Your task to perform on an android device: Go to privacy settings Image 0: 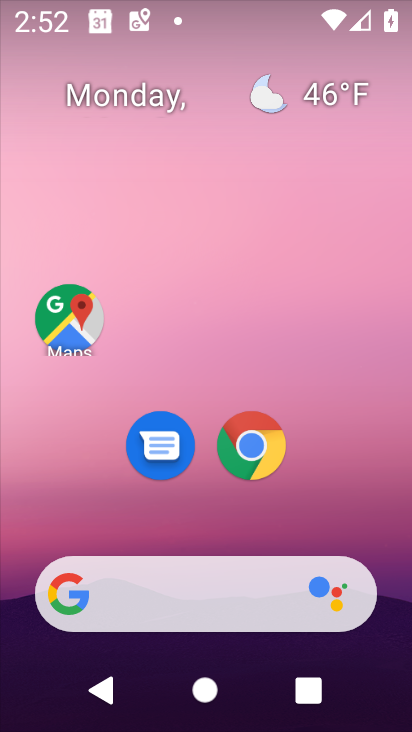
Step 0: drag from (322, 386) to (313, 95)
Your task to perform on an android device: Go to privacy settings Image 1: 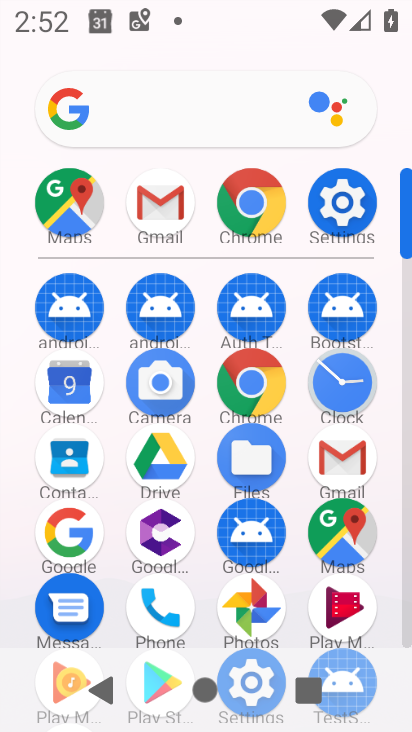
Step 1: click (357, 221)
Your task to perform on an android device: Go to privacy settings Image 2: 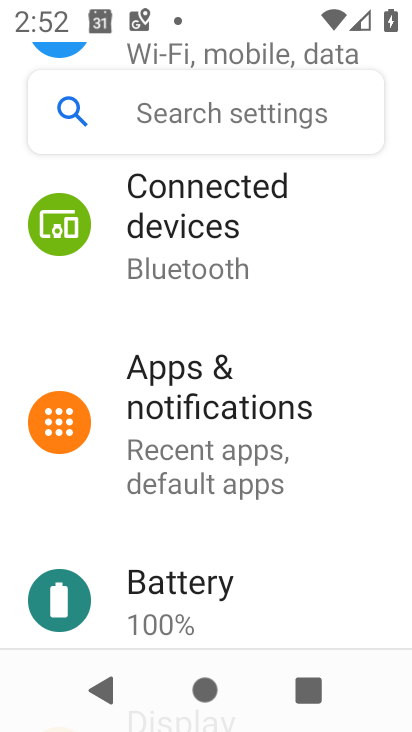
Step 2: drag from (271, 259) to (288, 644)
Your task to perform on an android device: Go to privacy settings Image 3: 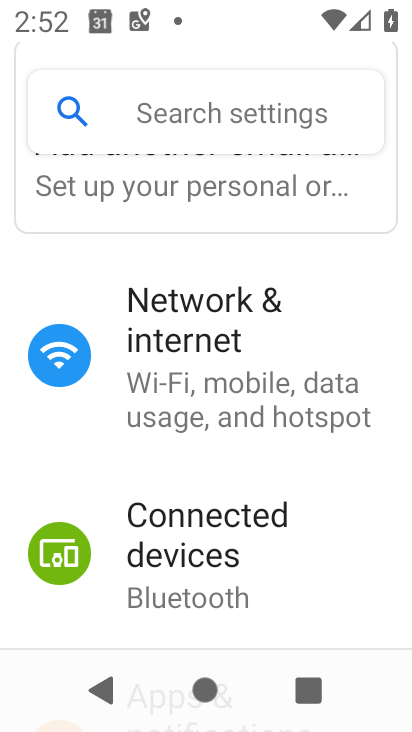
Step 3: drag from (333, 552) to (327, 231)
Your task to perform on an android device: Go to privacy settings Image 4: 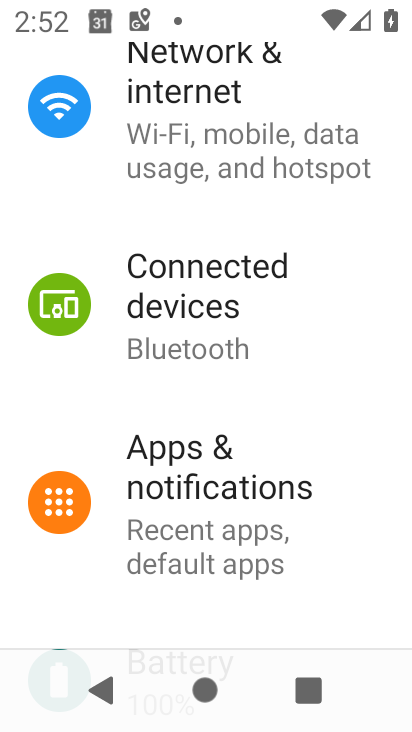
Step 4: drag from (323, 581) to (317, 236)
Your task to perform on an android device: Go to privacy settings Image 5: 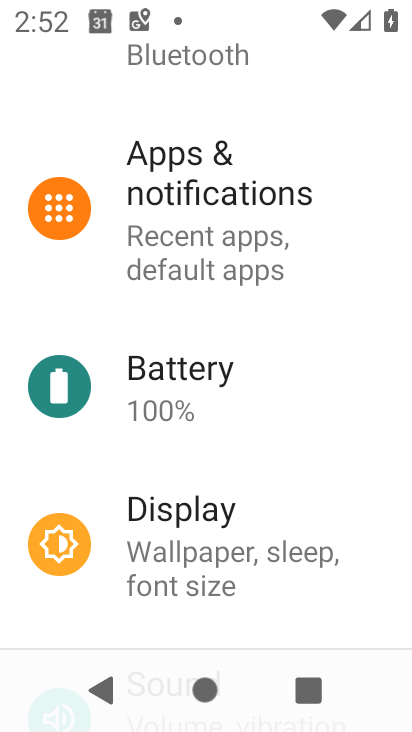
Step 5: drag from (297, 560) to (294, 150)
Your task to perform on an android device: Go to privacy settings Image 6: 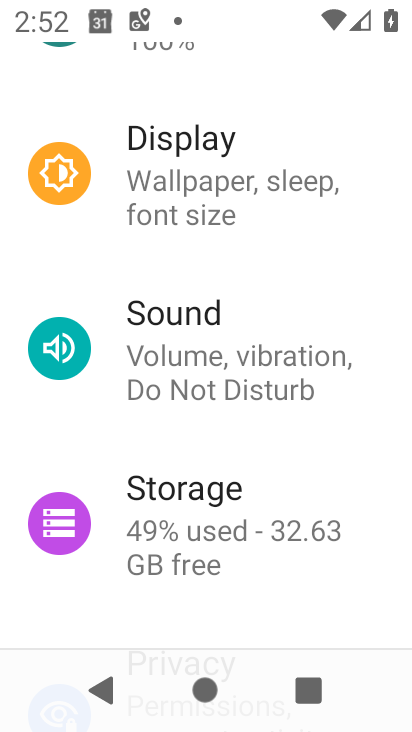
Step 6: drag from (263, 546) to (276, 216)
Your task to perform on an android device: Go to privacy settings Image 7: 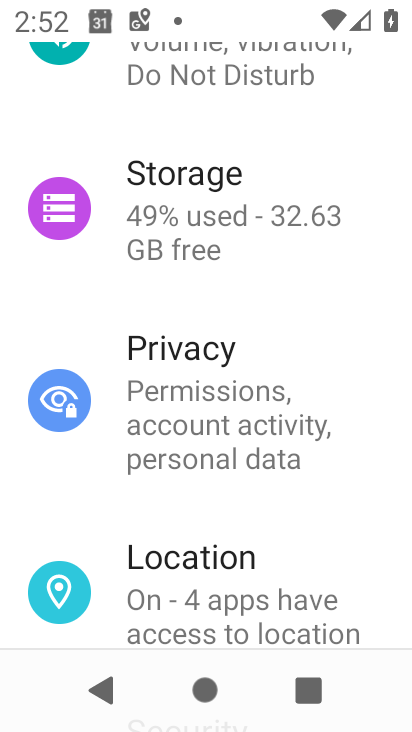
Step 7: click (289, 435)
Your task to perform on an android device: Go to privacy settings Image 8: 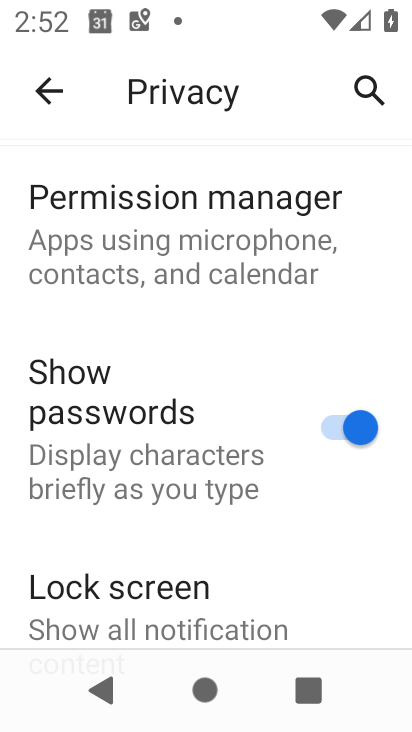
Step 8: task complete